Your task to perform on an android device: open a bookmark in the chrome app Image 0: 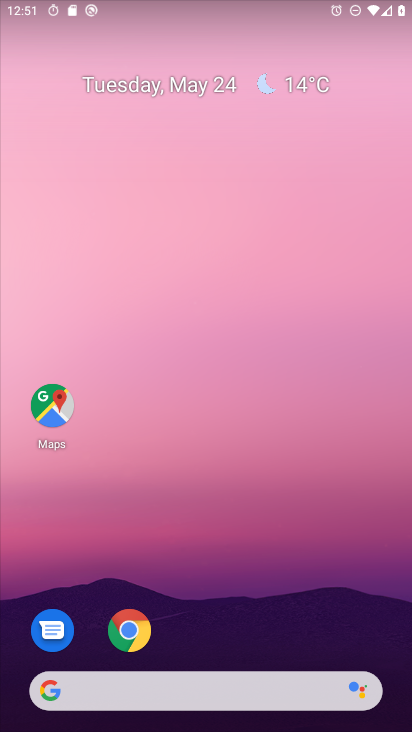
Step 0: drag from (242, 594) to (260, 202)
Your task to perform on an android device: open a bookmark in the chrome app Image 1: 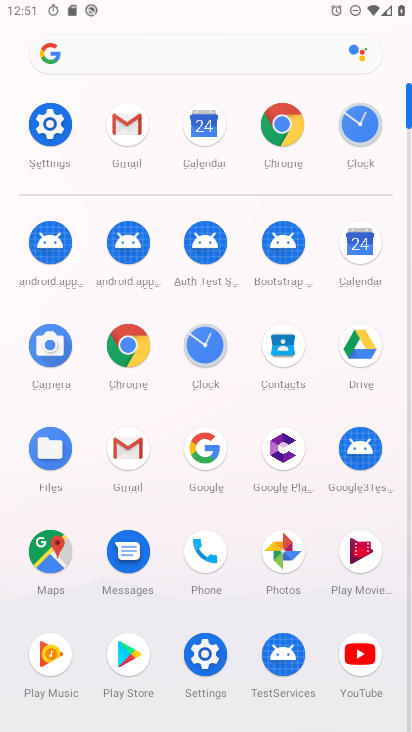
Step 1: click (122, 354)
Your task to perform on an android device: open a bookmark in the chrome app Image 2: 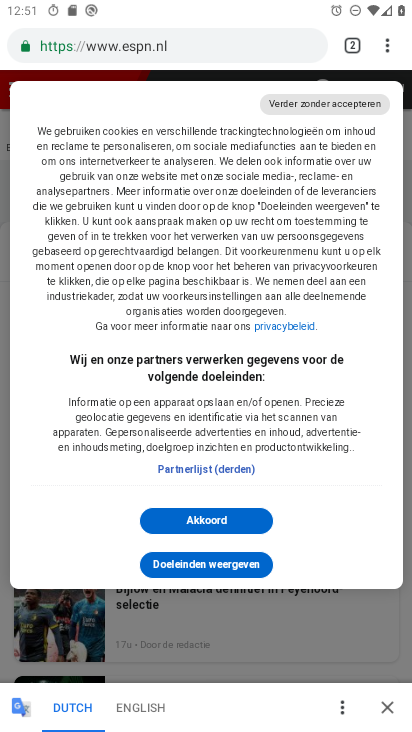
Step 2: task complete